Your task to perform on an android device: turn on sleep mode Image 0: 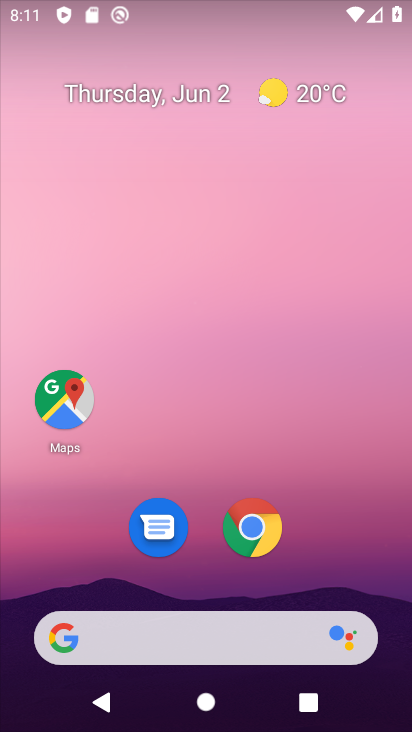
Step 0: drag from (233, 565) to (212, 15)
Your task to perform on an android device: turn on sleep mode Image 1: 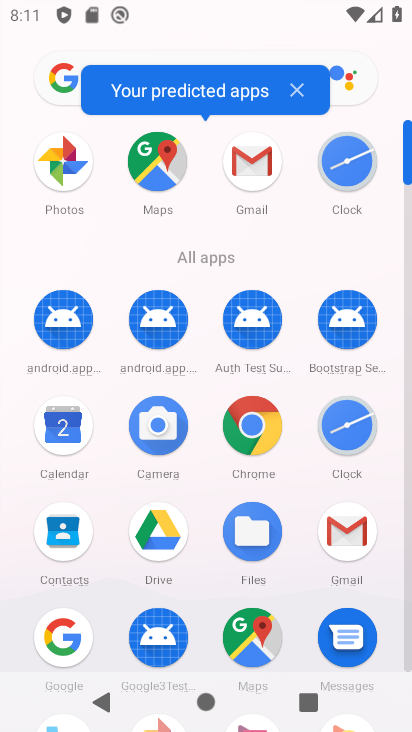
Step 1: drag from (202, 589) to (148, 5)
Your task to perform on an android device: turn on sleep mode Image 2: 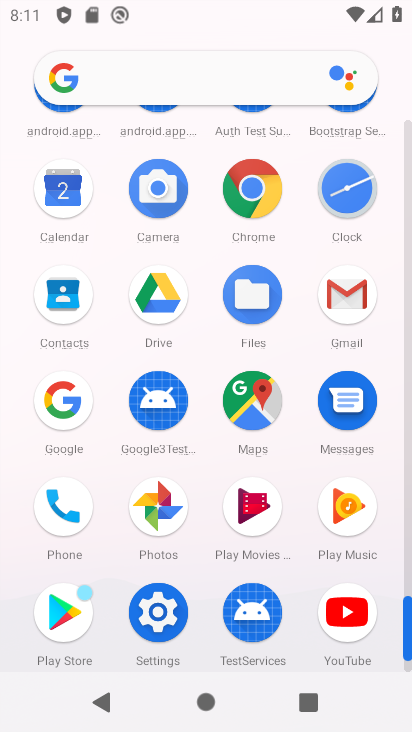
Step 2: click (148, 615)
Your task to perform on an android device: turn on sleep mode Image 3: 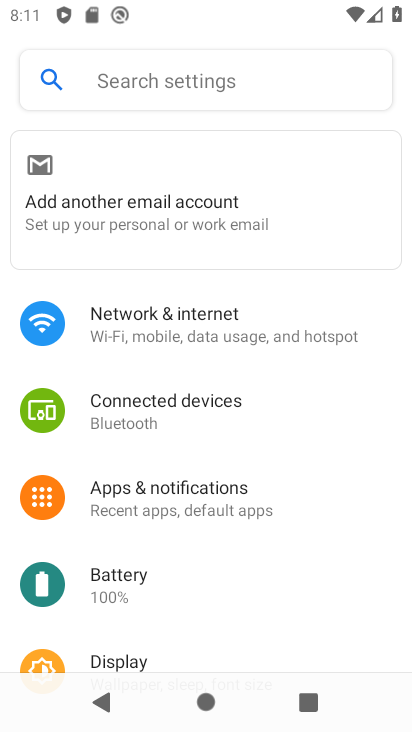
Step 3: task complete